Your task to perform on an android device: Show me productivity apps on the Play Store Image 0: 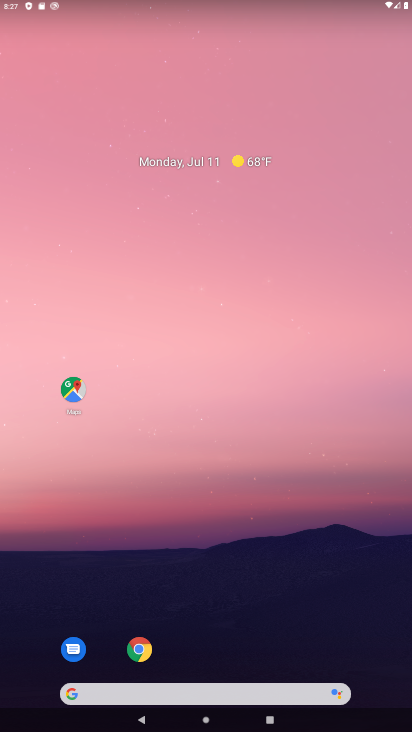
Step 0: click (187, 213)
Your task to perform on an android device: Show me productivity apps on the Play Store Image 1: 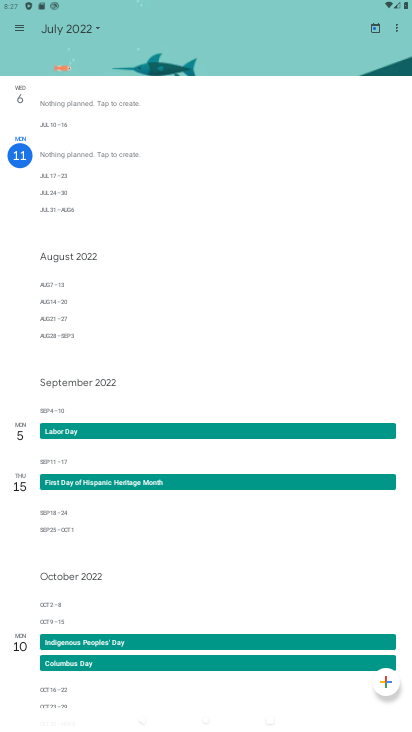
Step 1: press back button
Your task to perform on an android device: Show me productivity apps on the Play Store Image 2: 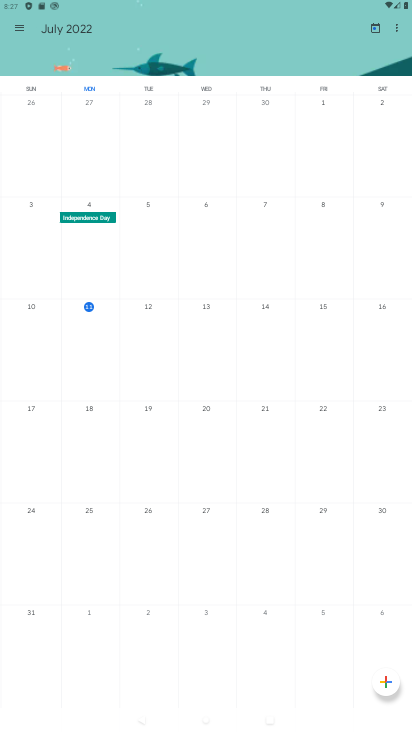
Step 2: press back button
Your task to perform on an android device: Show me productivity apps on the Play Store Image 3: 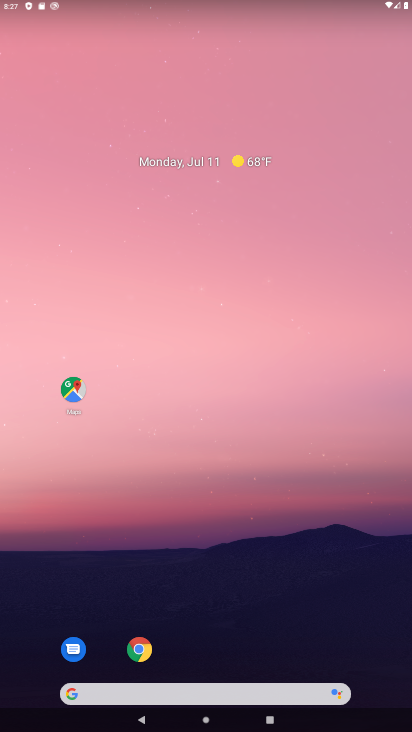
Step 3: drag from (232, 598) to (211, 227)
Your task to perform on an android device: Show me productivity apps on the Play Store Image 4: 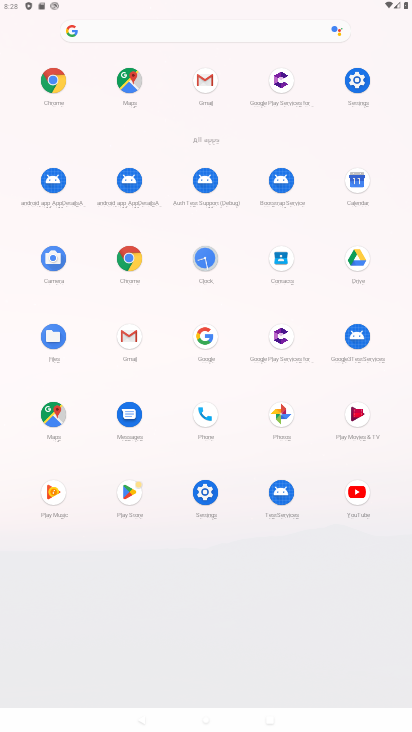
Step 4: click (130, 487)
Your task to perform on an android device: Show me productivity apps on the Play Store Image 5: 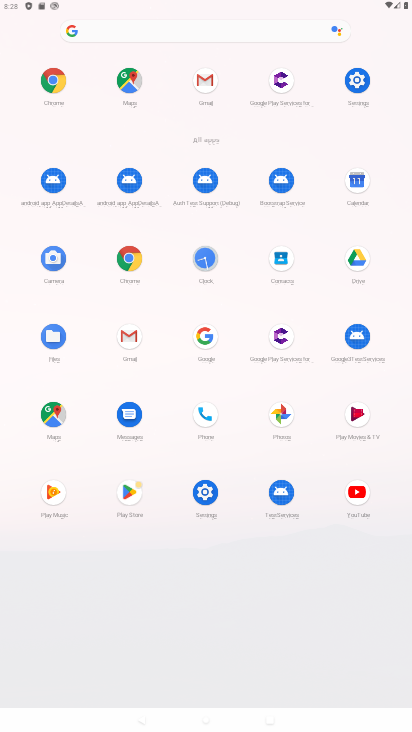
Step 5: click (139, 491)
Your task to perform on an android device: Show me productivity apps on the Play Store Image 6: 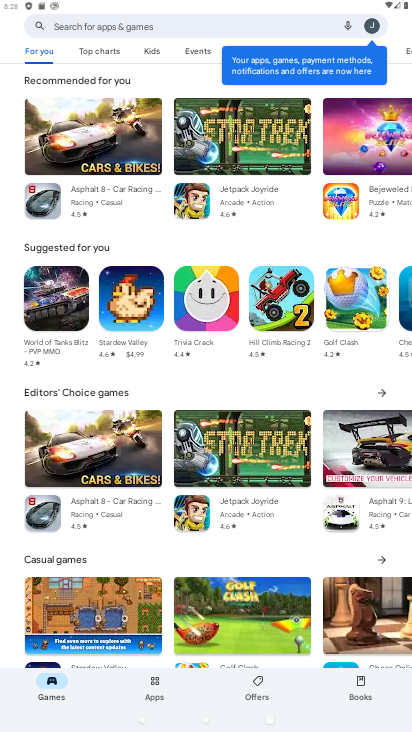
Step 6: click (147, 27)
Your task to perform on an android device: Show me productivity apps on the Play Store Image 7: 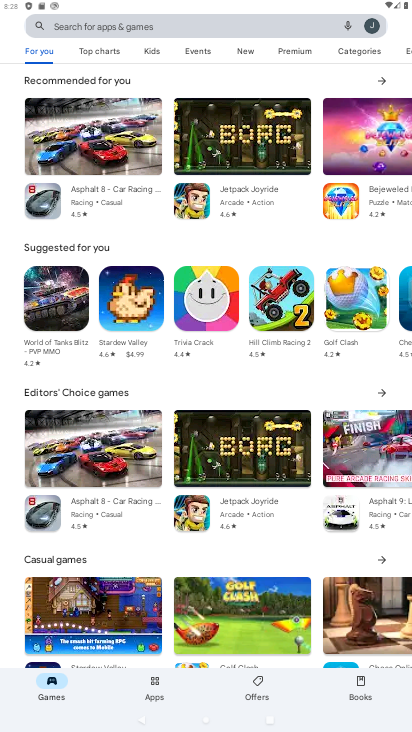
Step 7: click (157, 22)
Your task to perform on an android device: Show me productivity apps on the Play Store Image 8: 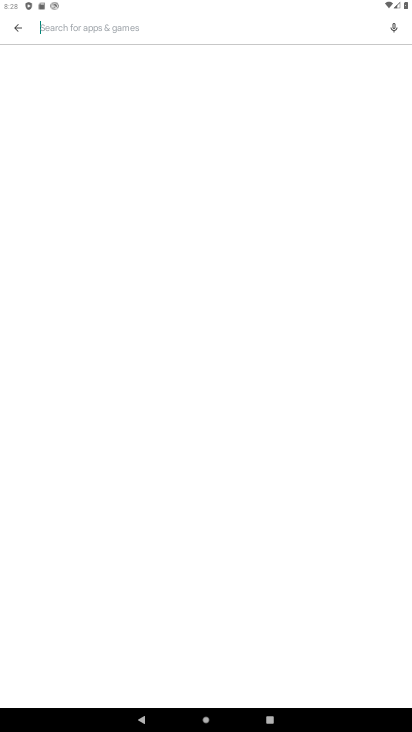
Step 8: type "productiuvity apps"
Your task to perform on an android device: Show me productivity apps on the Play Store Image 9: 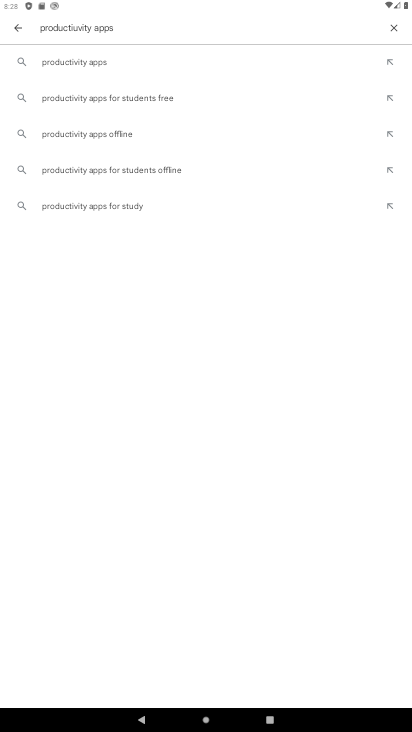
Step 9: click (66, 55)
Your task to perform on an android device: Show me productivity apps on the Play Store Image 10: 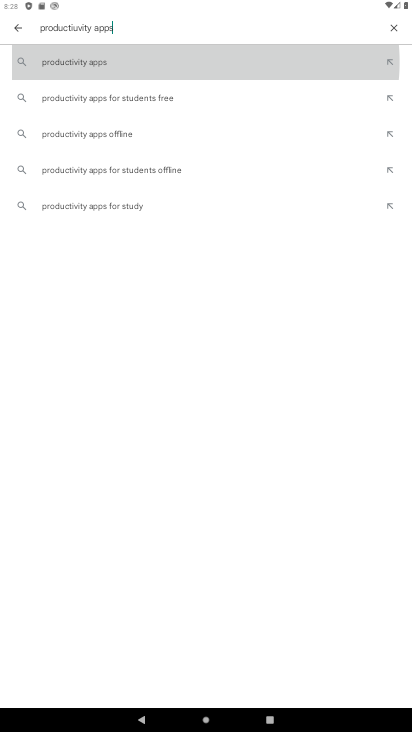
Step 10: click (68, 57)
Your task to perform on an android device: Show me productivity apps on the Play Store Image 11: 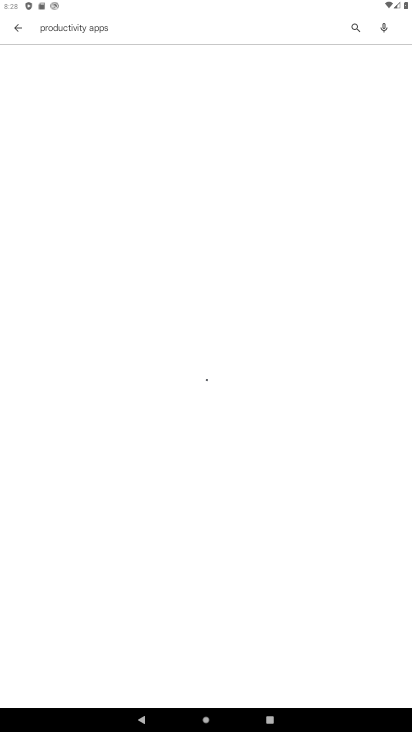
Step 11: click (68, 57)
Your task to perform on an android device: Show me productivity apps on the Play Store Image 12: 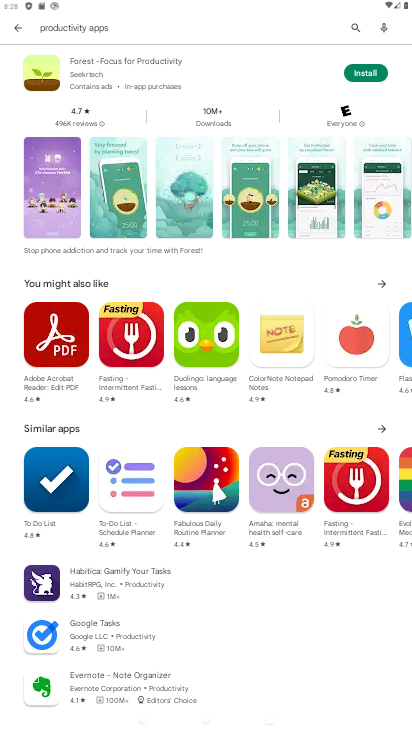
Step 12: task complete